Your task to perform on an android device: check storage Image 0: 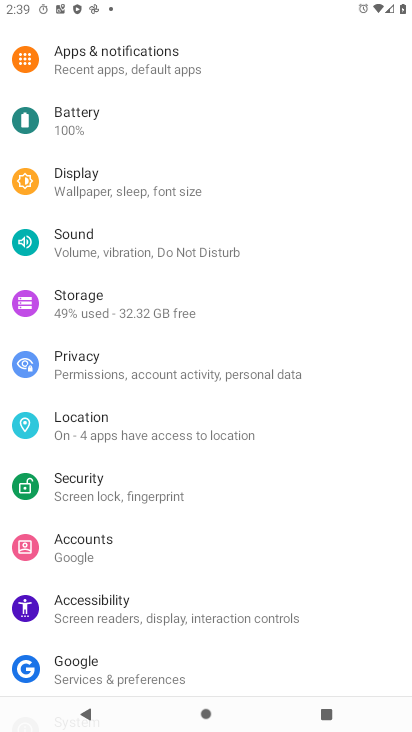
Step 0: click (101, 292)
Your task to perform on an android device: check storage Image 1: 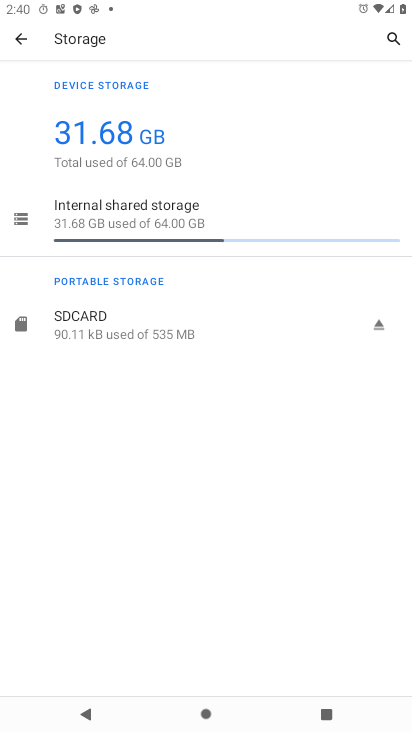
Step 1: task complete